Your task to perform on an android device: Open my contact list Image 0: 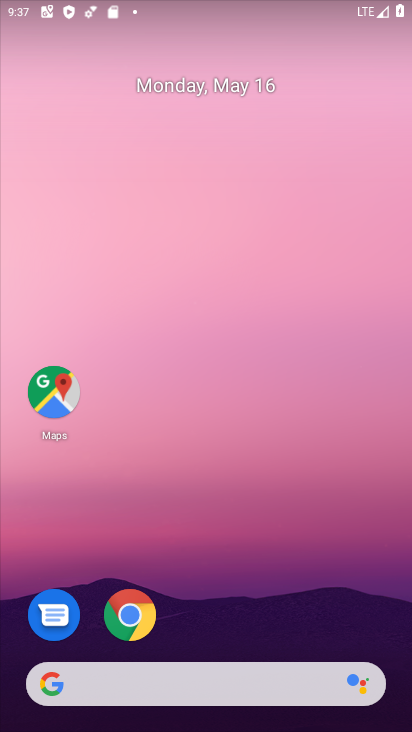
Step 0: drag from (289, 576) to (324, 268)
Your task to perform on an android device: Open my contact list Image 1: 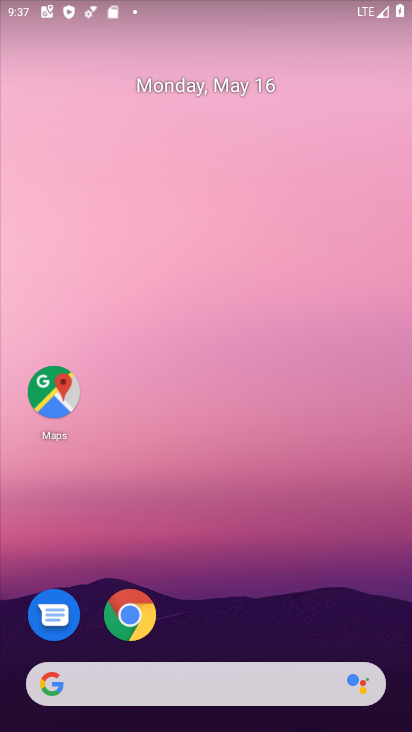
Step 1: drag from (205, 610) to (243, 150)
Your task to perform on an android device: Open my contact list Image 2: 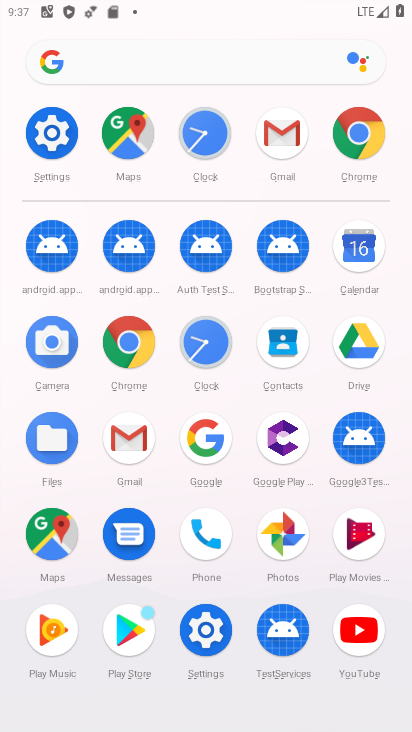
Step 2: click (279, 359)
Your task to perform on an android device: Open my contact list Image 3: 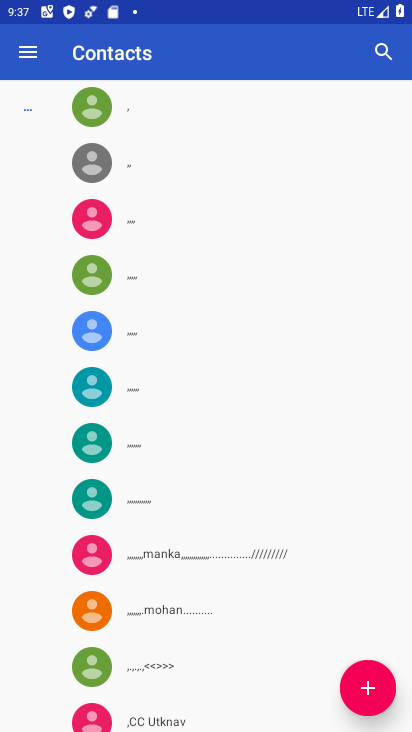
Step 3: task complete